Your task to perform on an android device: toggle notifications settings in the gmail app Image 0: 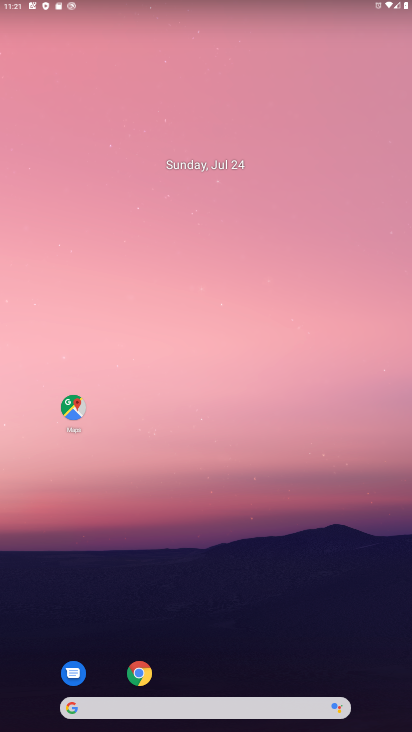
Step 0: drag from (318, 653) to (306, 92)
Your task to perform on an android device: toggle notifications settings in the gmail app Image 1: 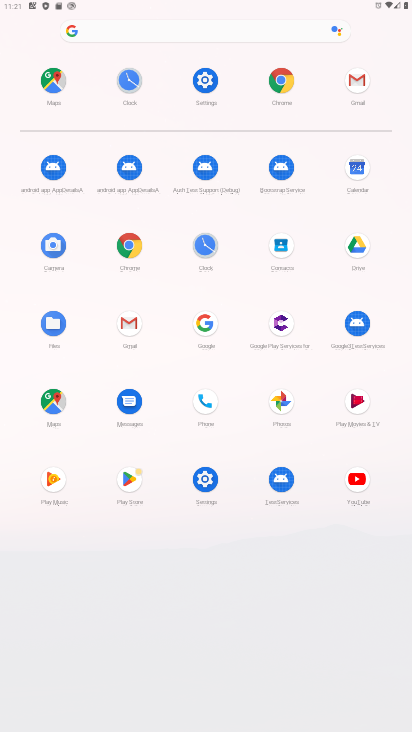
Step 1: click (357, 82)
Your task to perform on an android device: toggle notifications settings in the gmail app Image 2: 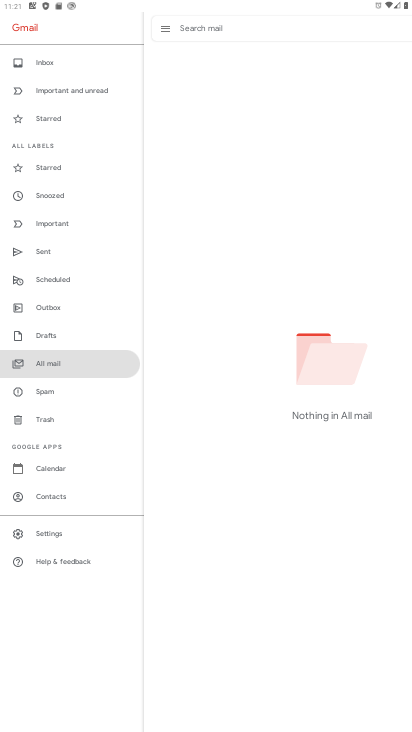
Step 2: click (39, 538)
Your task to perform on an android device: toggle notifications settings in the gmail app Image 3: 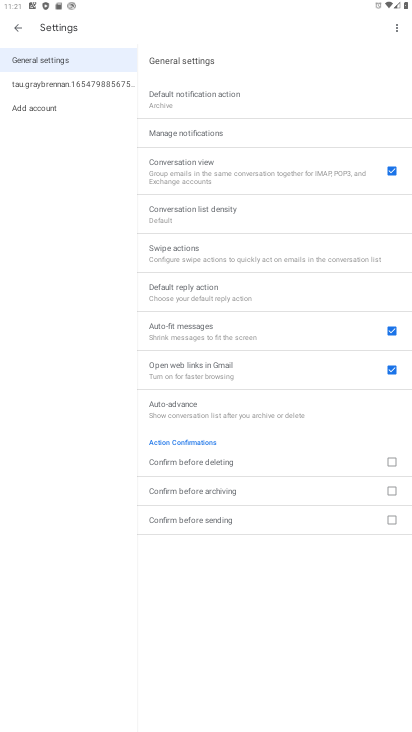
Step 3: click (126, 82)
Your task to perform on an android device: toggle notifications settings in the gmail app Image 4: 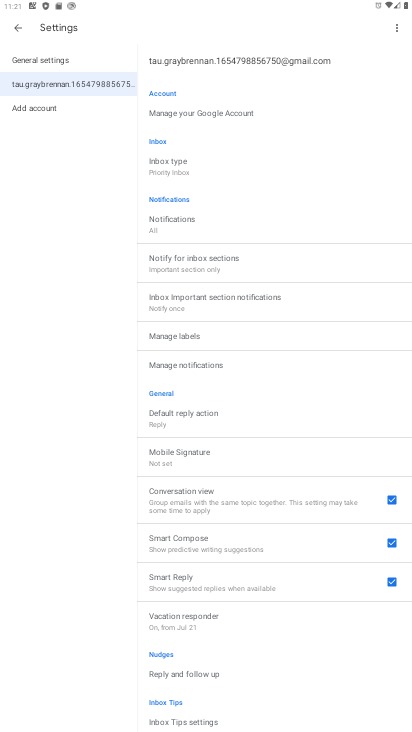
Step 4: click (207, 373)
Your task to perform on an android device: toggle notifications settings in the gmail app Image 5: 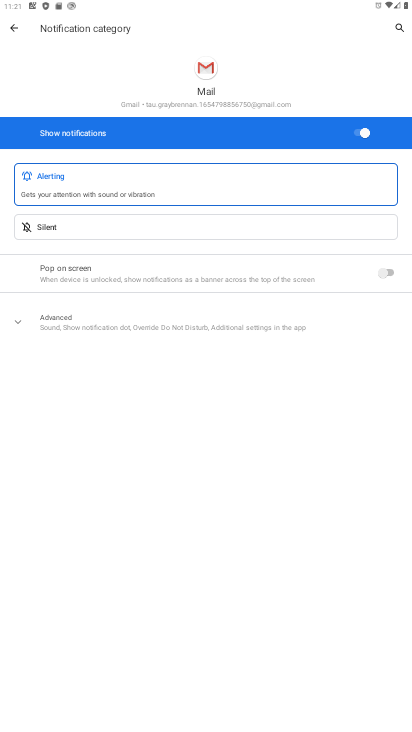
Step 5: click (364, 134)
Your task to perform on an android device: toggle notifications settings in the gmail app Image 6: 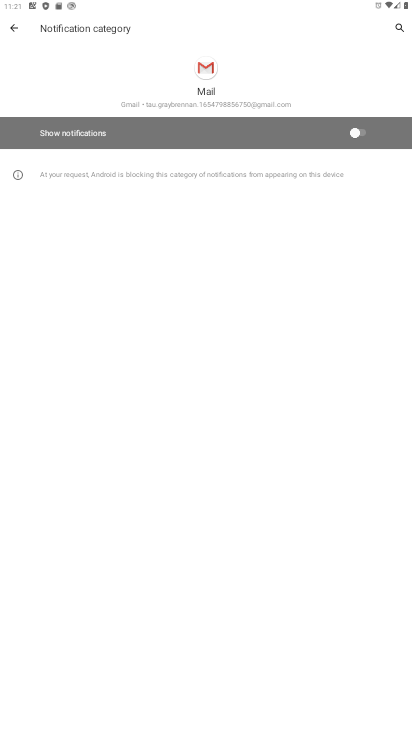
Step 6: task complete